Your task to perform on an android device: open a new tab in the chrome app Image 0: 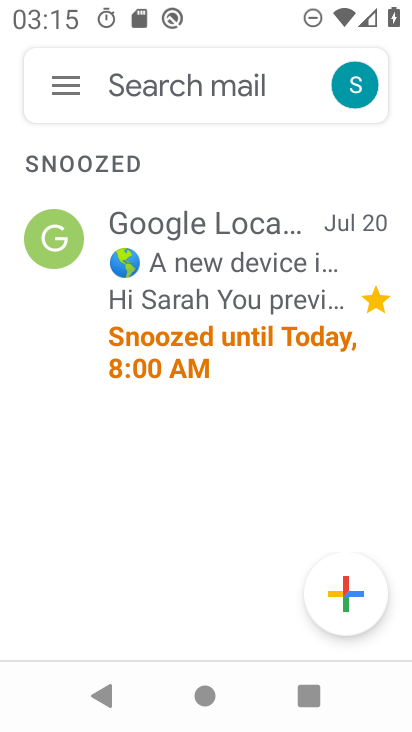
Step 0: press home button
Your task to perform on an android device: open a new tab in the chrome app Image 1: 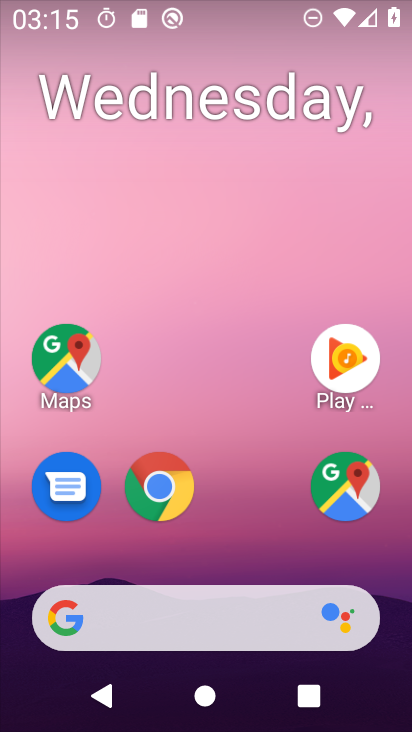
Step 1: drag from (239, 560) to (253, 147)
Your task to perform on an android device: open a new tab in the chrome app Image 2: 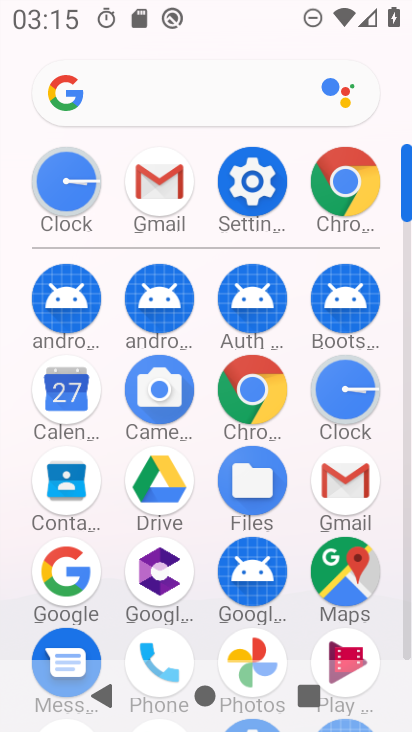
Step 2: click (259, 388)
Your task to perform on an android device: open a new tab in the chrome app Image 3: 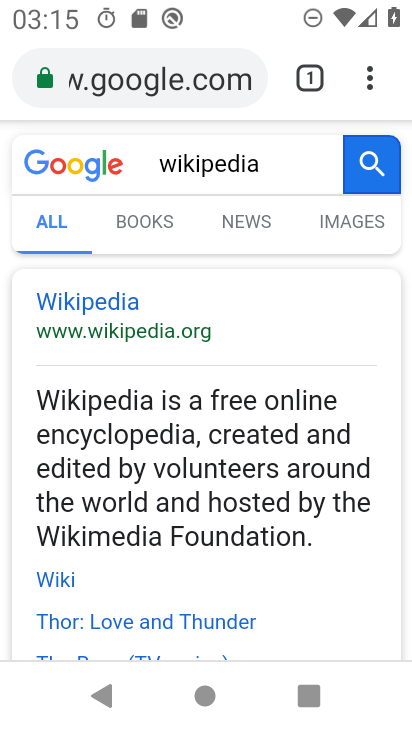
Step 3: click (369, 79)
Your task to perform on an android device: open a new tab in the chrome app Image 4: 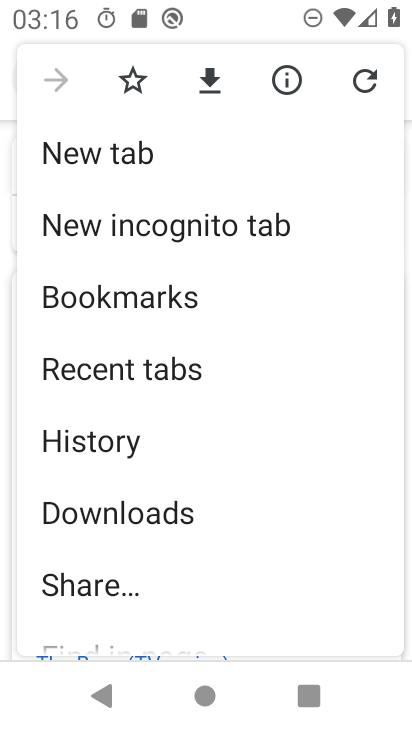
Step 4: click (173, 155)
Your task to perform on an android device: open a new tab in the chrome app Image 5: 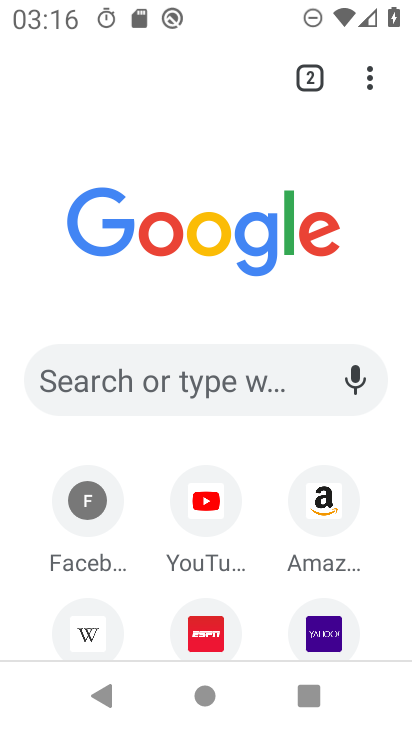
Step 5: task complete